Your task to perform on an android device: Open battery settings Image 0: 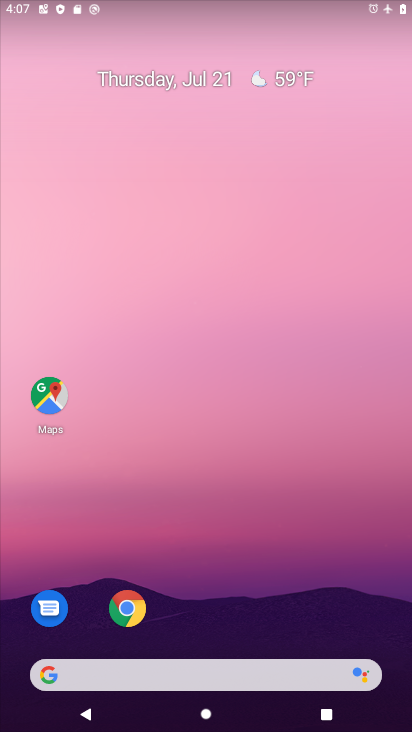
Step 0: drag from (261, 677) to (314, 143)
Your task to perform on an android device: Open battery settings Image 1: 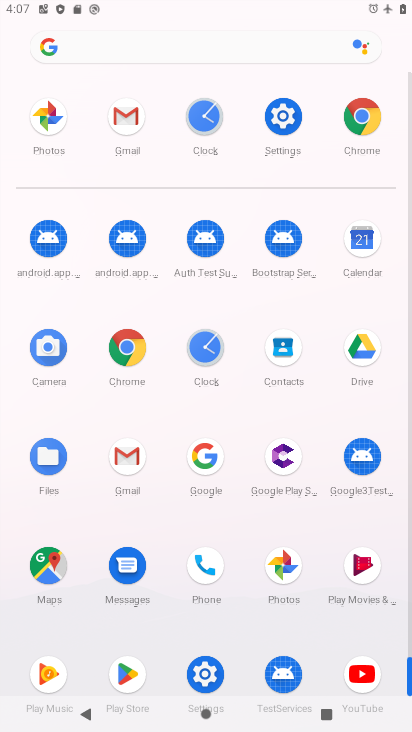
Step 1: click (283, 121)
Your task to perform on an android device: Open battery settings Image 2: 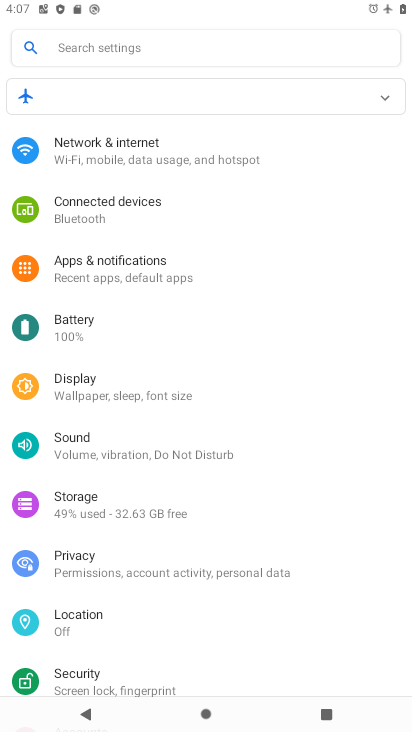
Step 2: click (91, 327)
Your task to perform on an android device: Open battery settings Image 3: 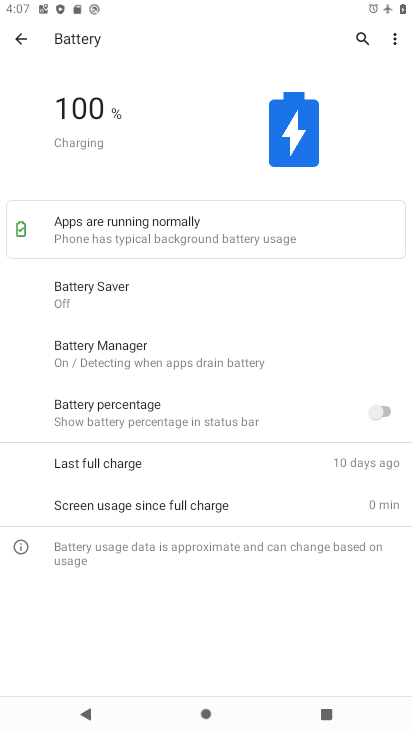
Step 3: task complete